Your task to perform on an android device: turn off airplane mode Image 0: 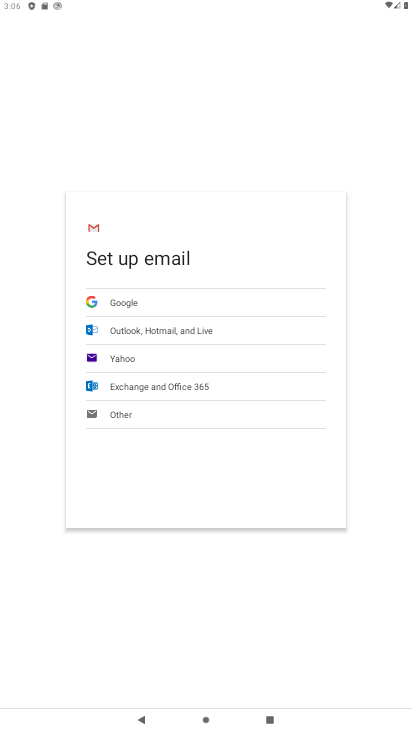
Step 0: press home button
Your task to perform on an android device: turn off airplane mode Image 1: 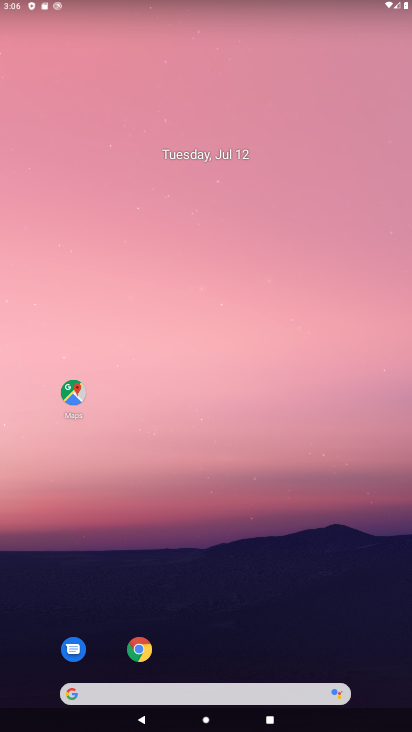
Step 1: task complete